Your task to perform on an android device: toggle notifications settings in the gmail app Image 0: 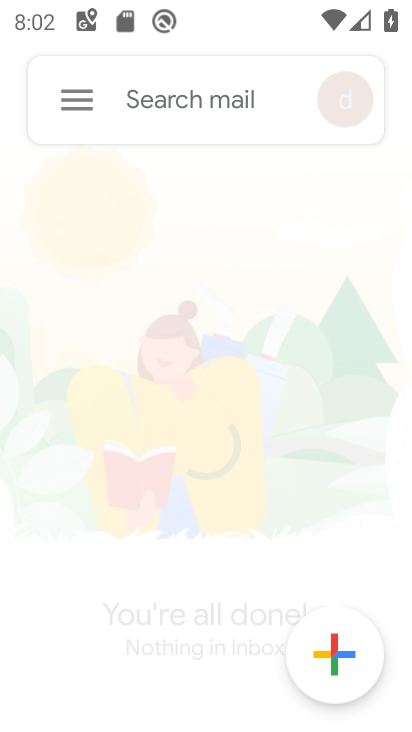
Step 0: press home button
Your task to perform on an android device: toggle notifications settings in the gmail app Image 1: 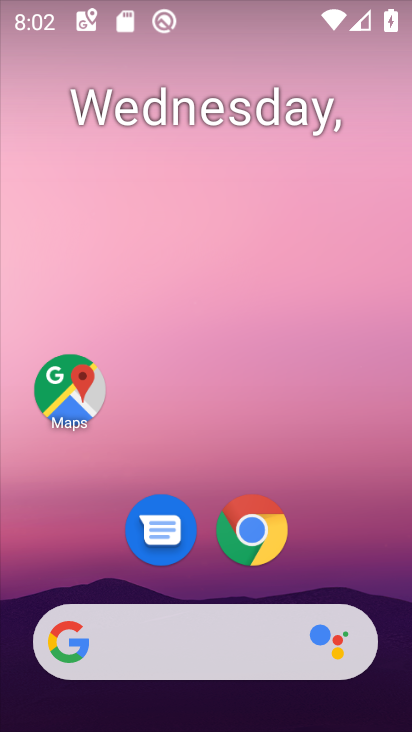
Step 1: drag from (386, 644) to (271, 76)
Your task to perform on an android device: toggle notifications settings in the gmail app Image 2: 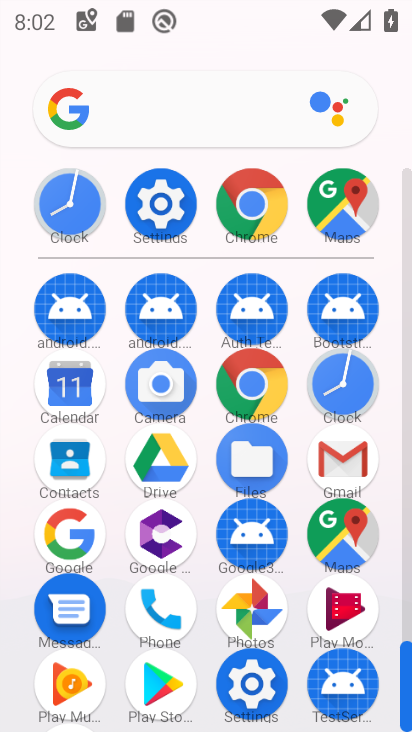
Step 2: click (337, 460)
Your task to perform on an android device: toggle notifications settings in the gmail app Image 3: 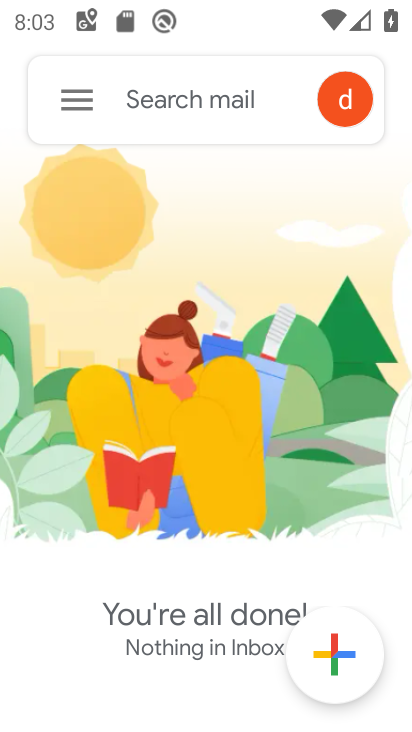
Step 3: click (85, 89)
Your task to perform on an android device: toggle notifications settings in the gmail app Image 4: 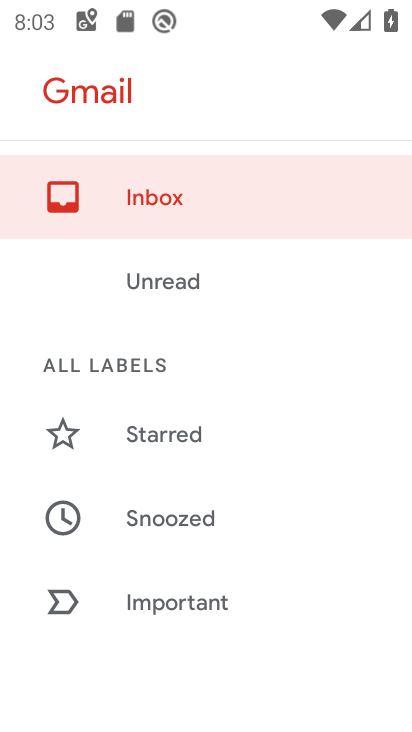
Step 4: drag from (118, 575) to (183, 108)
Your task to perform on an android device: toggle notifications settings in the gmail app Image 5: 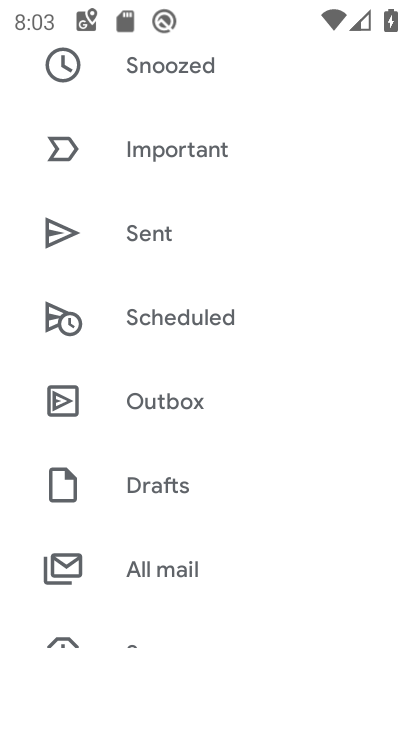
Step 5: drag from (220, 558) to (233, 46)
Your task to perform on an android device: toggle notifications settings in the gmail app Image 6: 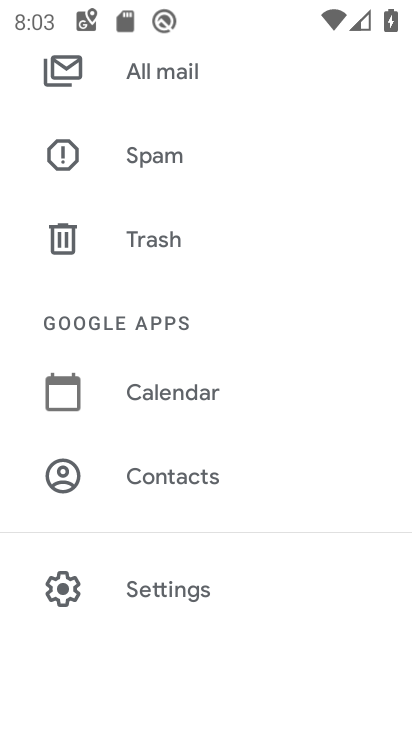
Step 6: click (177, 603)
Your task to perform on an android device: toggle notifications settings in the gmail app Image 7: 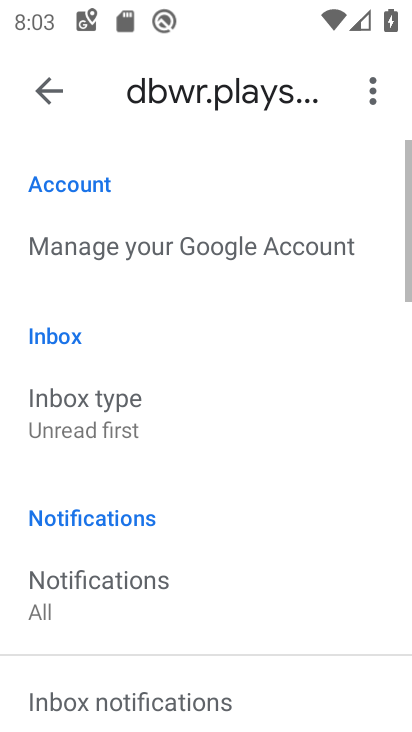
Step 7: click (155, 592)
Your task to perform on an android device: toggle notifications settings in the gmail app Image 8: 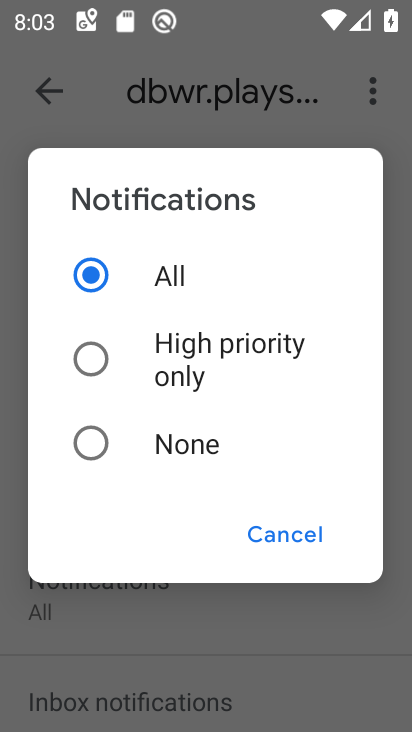
Step 8: click (174, 442)
Your task to perform on an android device: toggle notifications settings in the gmail app Image 9: 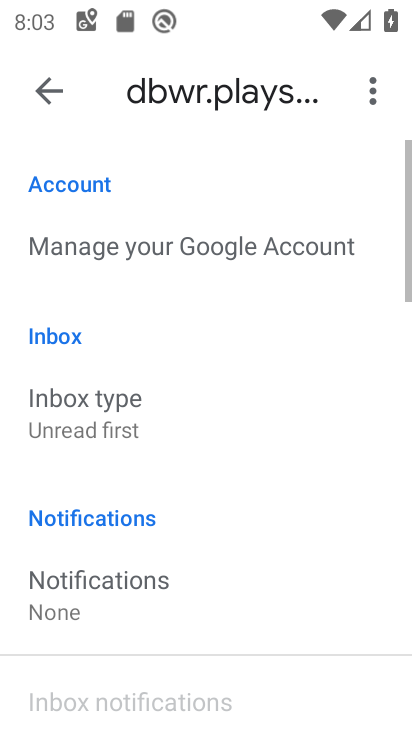
Step 9: task complete